Your task to perform on an android device: remove spam from my inbox in the gmail app Image 0: 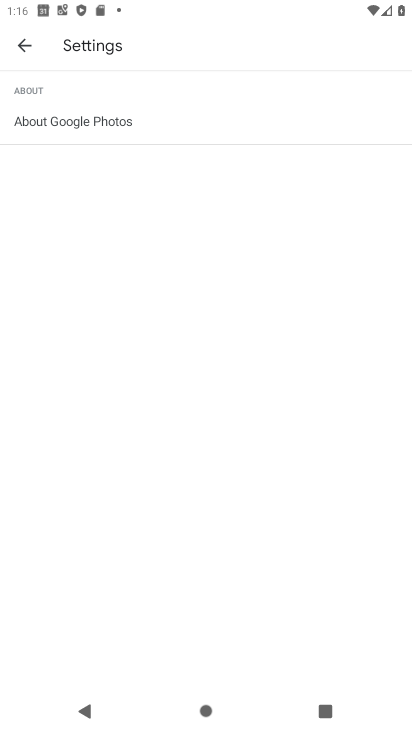
Step 0: press home button
Your task to perform on an android device: remove spam from my inbox in the gmail app Image 1: 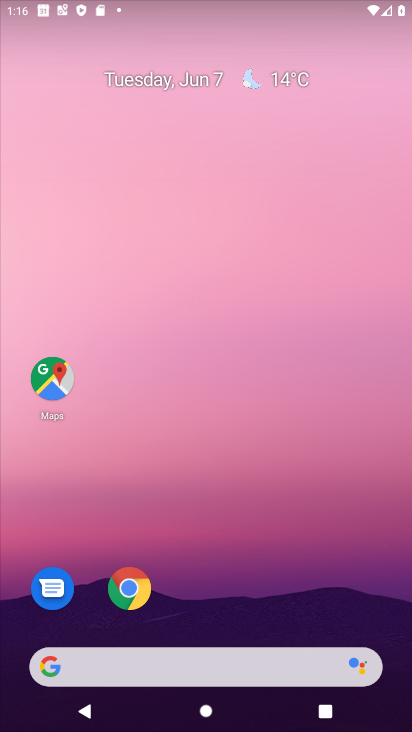
Step 1: drag from (300, 487) to (254, 25)
Your task to perform on an android device: remove spam from my inbox in the gmail app Image 2: 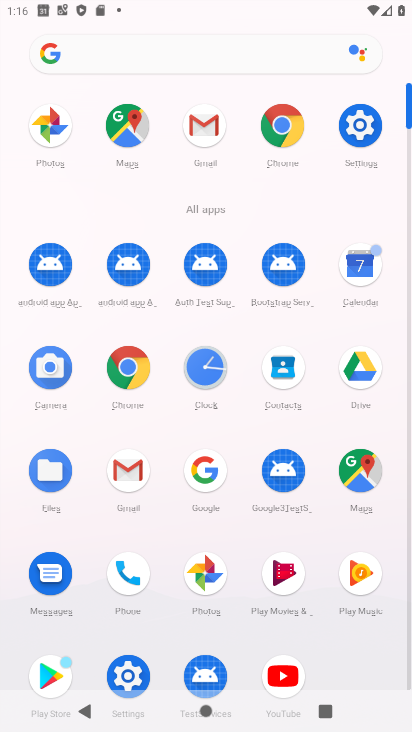
Step 2: click (213, 136)
Your task to perform on an android device: remove spam from my inbox in the gmail app Image 3: 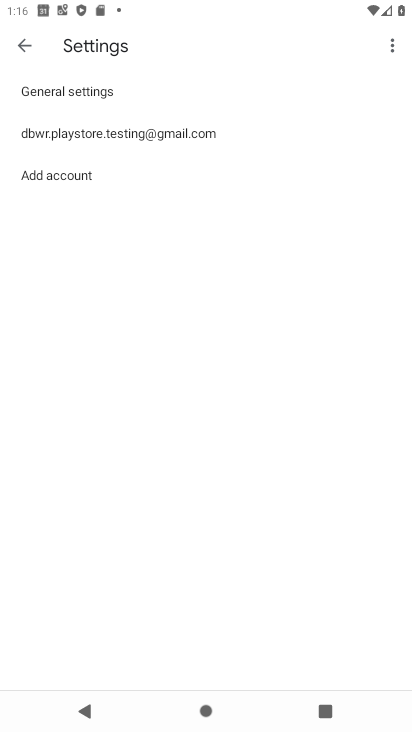
Step 3: click (23, 57)
Your task to perform on an android device: remove spam from my inbox in the gmail app Image 4: 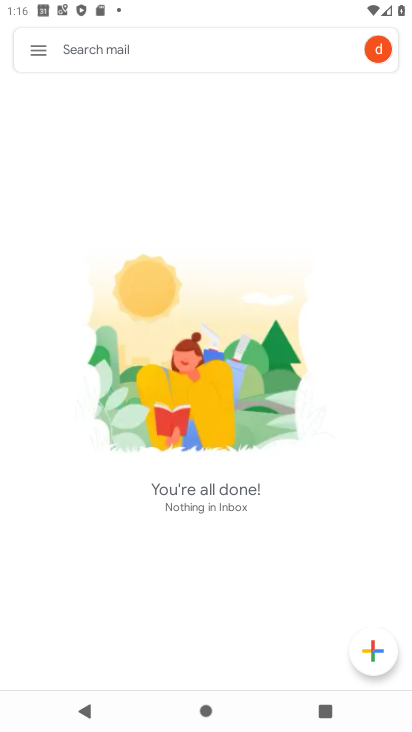
Step 4: click (33, 54)
Your task to perform on an android device: remove spam from my inbox in the gmail app Image 5: 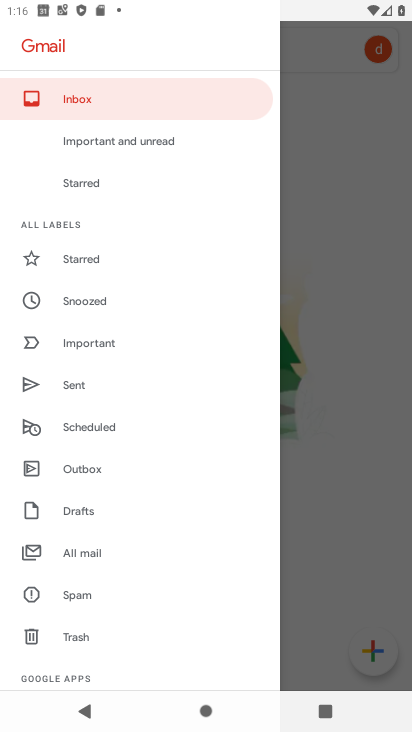
Step 5: click (125, 616)
Your task to perform on an android device: remove spam from my inbox in the gmail app Image 6: 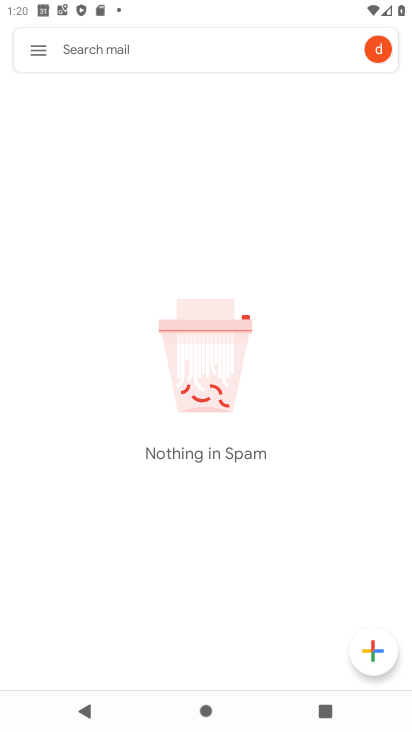
Step 6: task complete